Your task to perform on an android device: empty trash in google photos Image 0: 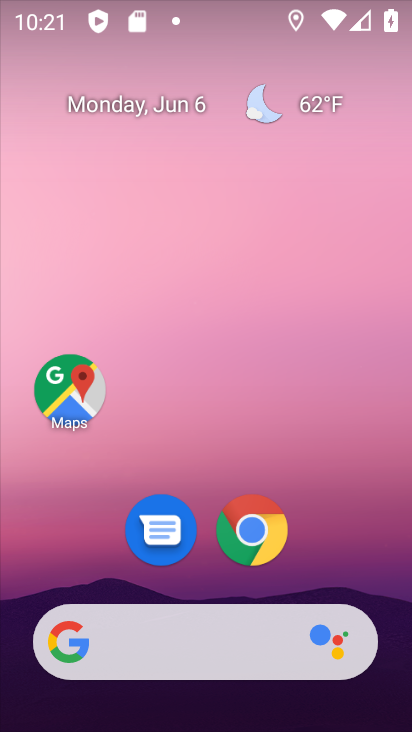
Step 0: drag from (330, 534) to (344, 106)
Your task to perform on an android device: empty trash in google photos Image 1: 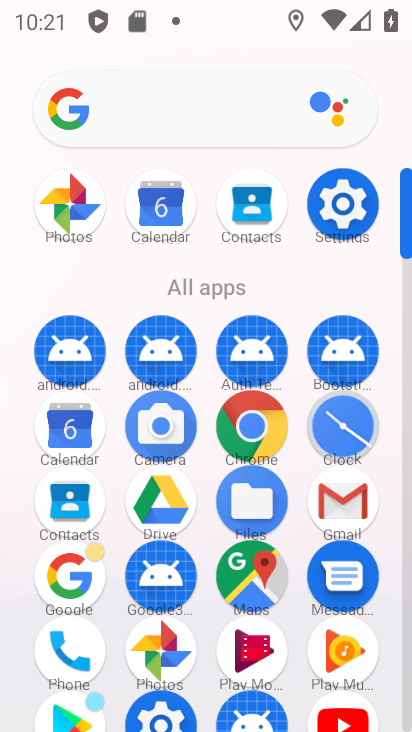
Step 1: click (78, 194)
Your task to perform on an android device: empty trash in google photos Image 2: 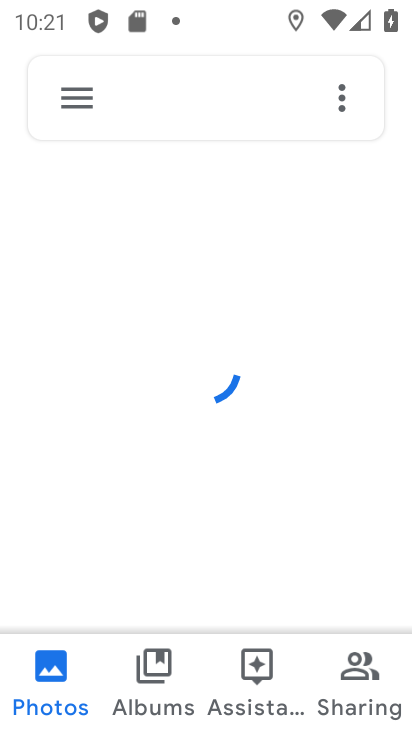
Step 2: click (62, 95)
Your task to perform on an android device: empty trash in google photos Image 3: 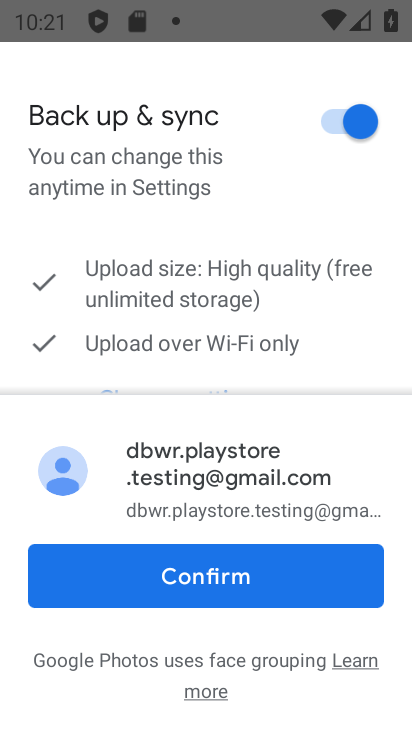
Step 3: click (212, 563)
Your task to perform on an android device: empty trash in google photos Image 4: 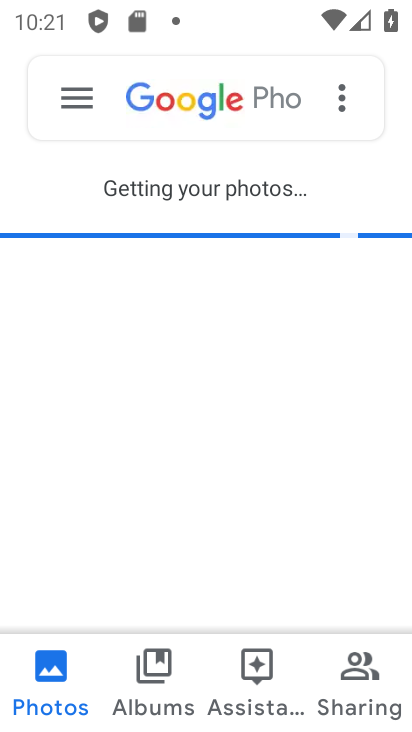
Step 4: click (87, 98)
Your task to perform on an android device: empty trash in google photos Image 5: 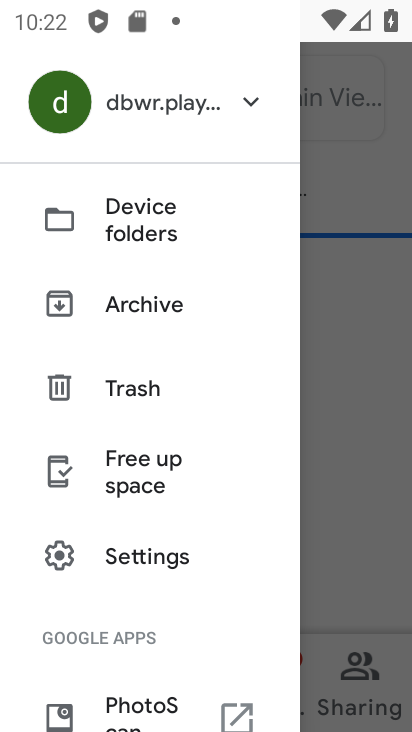
Step 5: click (138, 374)
Your task to perform on an android device: empty trash in google photos Image 6: 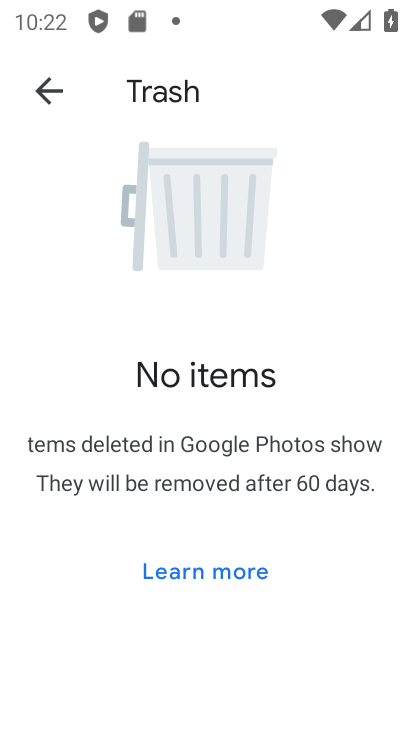
Step 6: task complete